Your task to perform on an android device: find which apps use the phone's location Image 0: 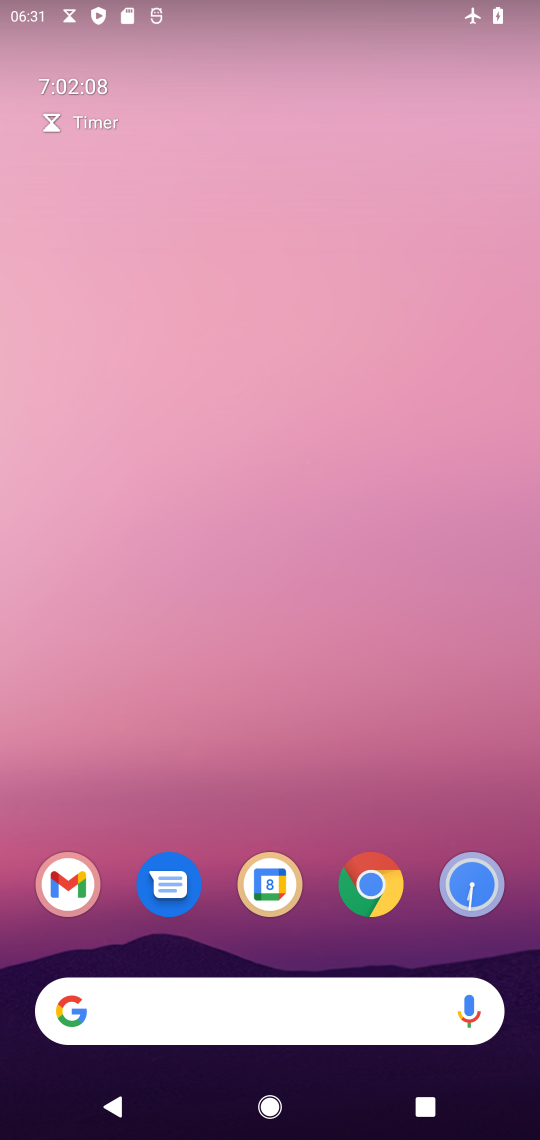
Step 0: drag from (431, 821) to (421, 198)
Your task to perform on an android device: find which apps use the phone's location Image 1: 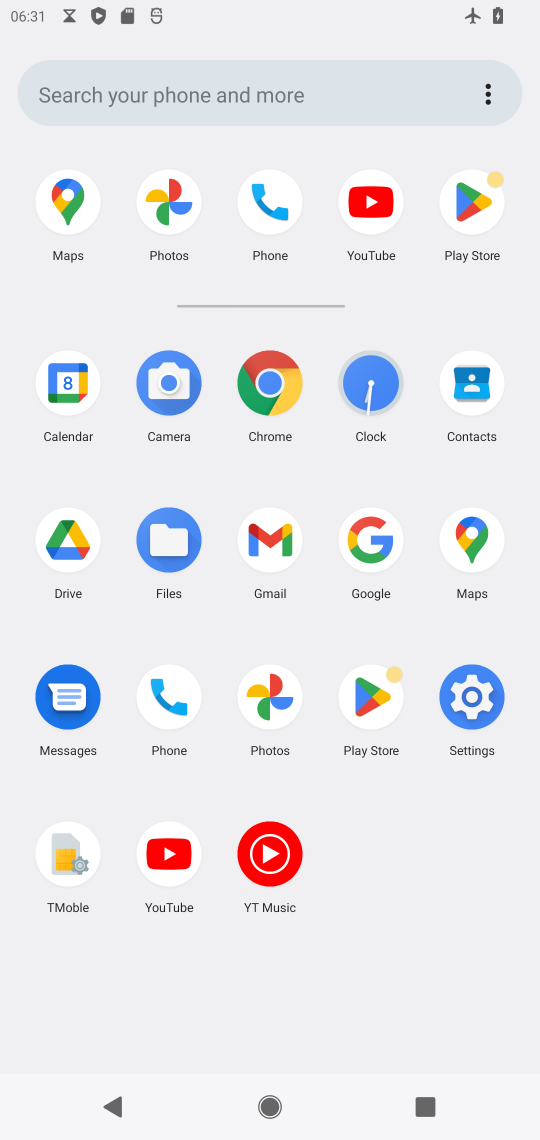
Step 1: click (480, 710)
Your task to perform on an android device: find which apps use the phone's location Image 2: 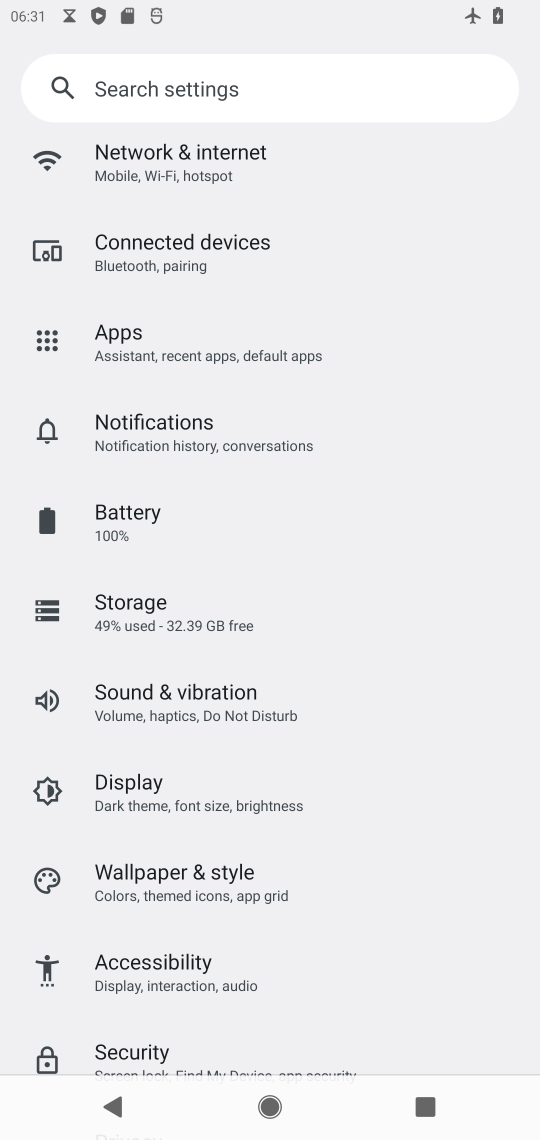
Step 2: drag from (307, 1021) to (239, 308)
Your task to perform on an android device: find which apps use the phone's location Image 3: 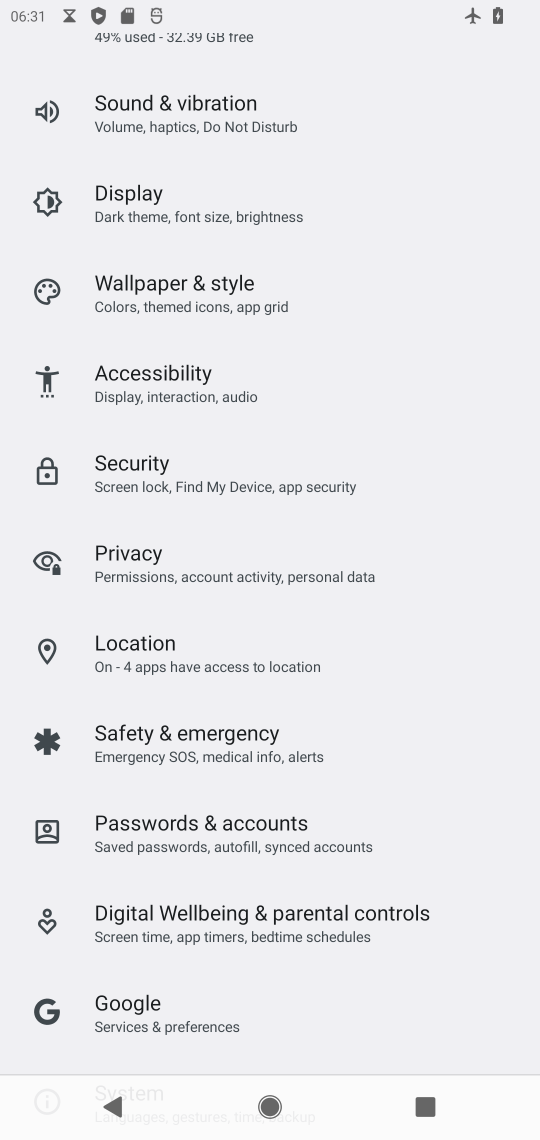
Step 3: click (269, 668)
Your task to perform on an android device: find which apps use the phone's location Image 4: 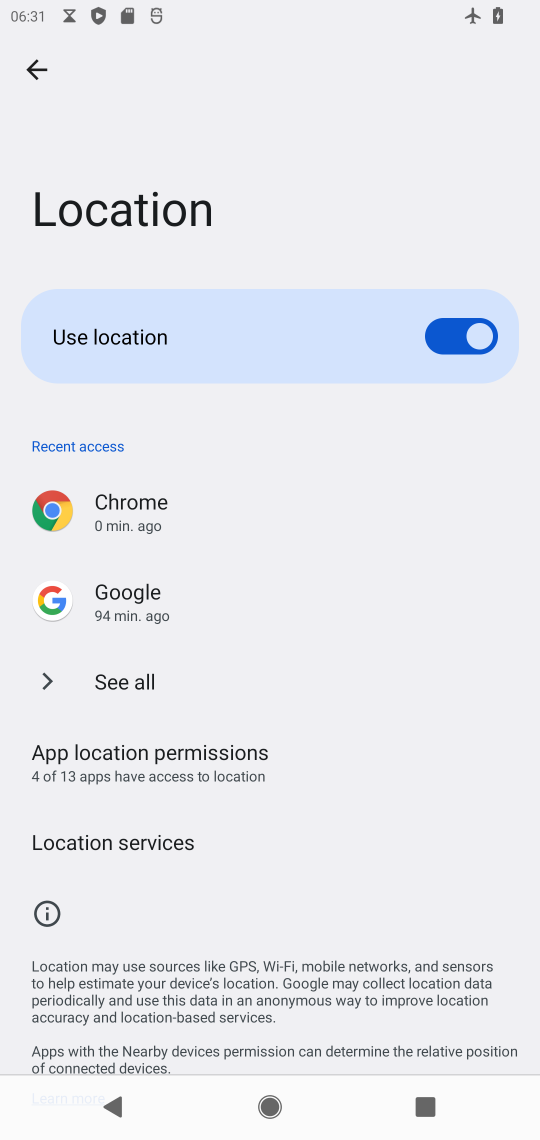
Step 4: click (200, 763)
Your task to perform on an android device: find which apps use the phone's location Image 5: 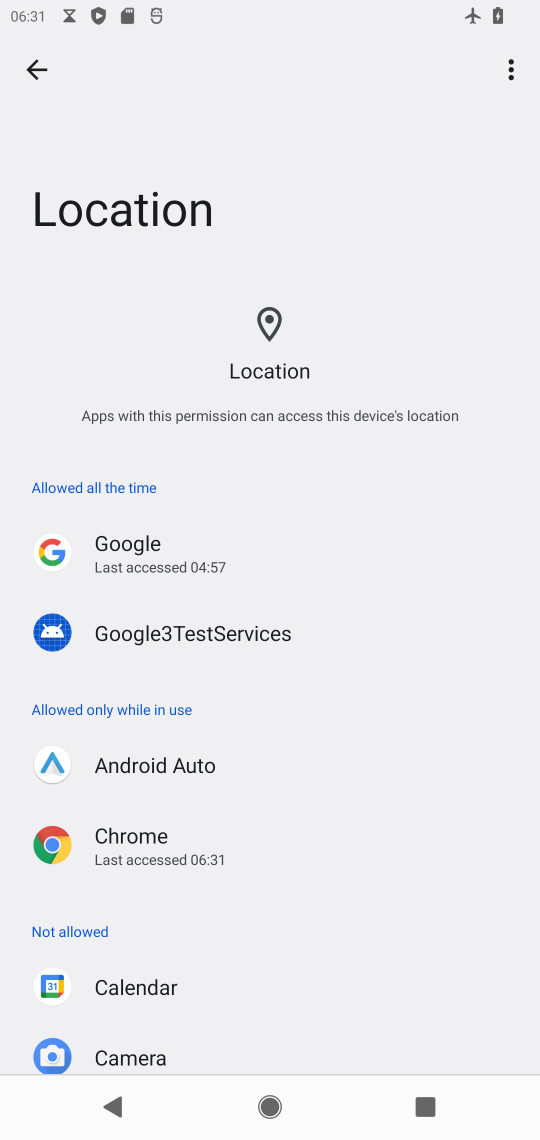
Step 5: task complete